Your task to perform on an android device: find snoozed emails in the gmail app Image 0: 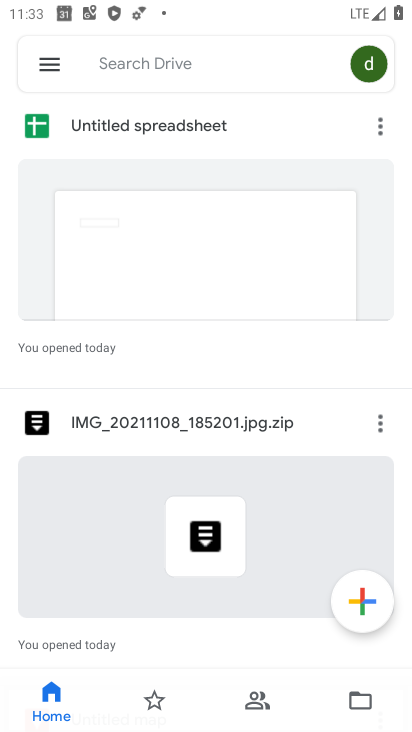
Step 0: press home button
Your task to perform on an android device: find snoozed emails in the gmail app Image 1: 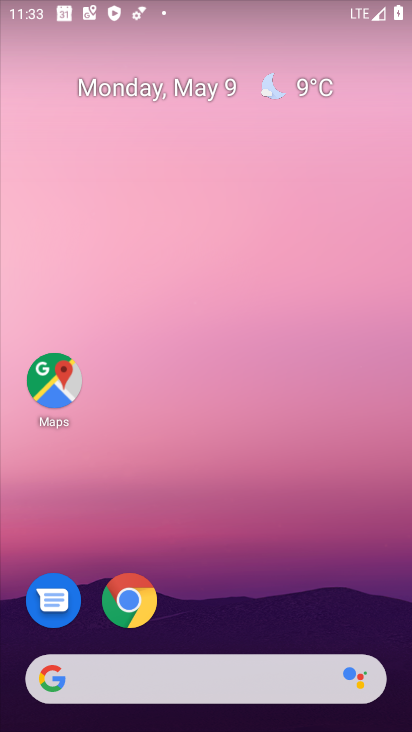
Step 1: drag from (366, 590) to (291, 205)
Your task to perform on an android device: find snoozed emails in the gmail app Image 2: 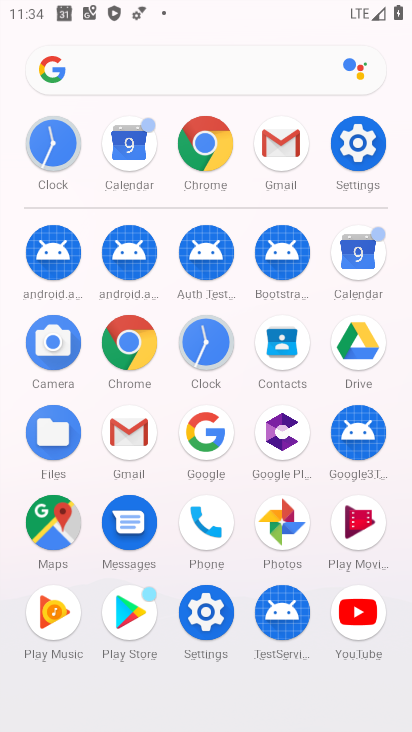
Step 2: click (127, 428)
Your task to perform on an android device: find snoozed emails in the gmail app Image 3: 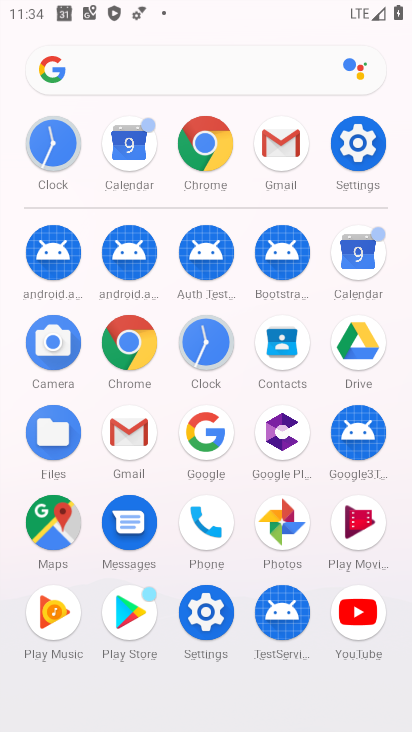
Step 3: click (100, 430)
Your task to perform on an android device: find snoozed emails in the gmail app Image 4: 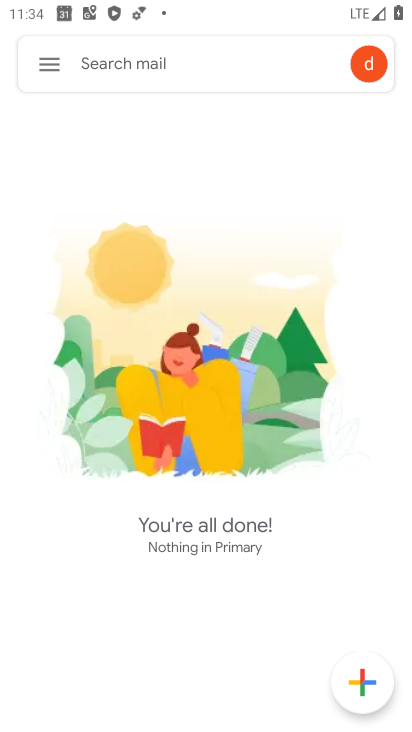
Step 4: click (41, 49)
Your task to perform on an android device: find snoozed emails in the gmail app Image 5: 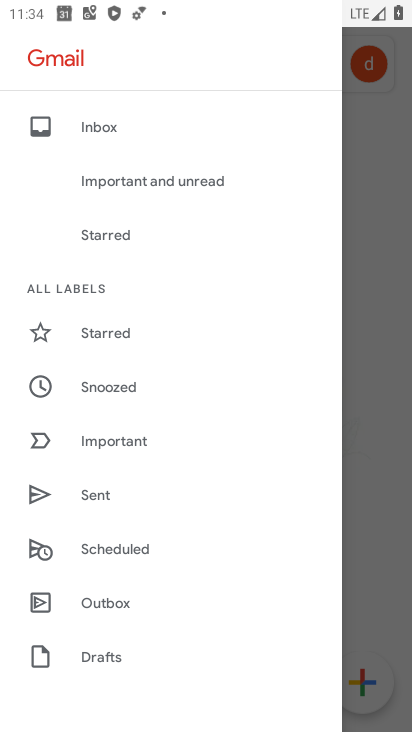
Step 5: click (128, 380)
Your task to perform on an android device: find snoozed emails in the gmail app Image 6: 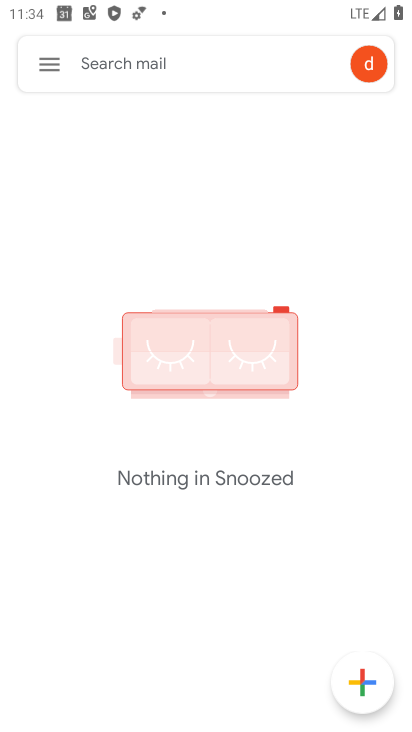
Step 6: task complete